Your task to perform on an android device: Open internet settings Image 0: 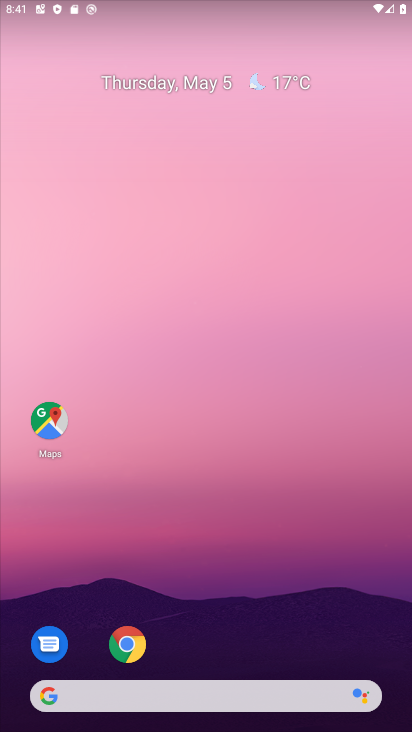
Step 0: drag from (233, 641) to (225, 246)
Your task to perform on an android device: Open internet settings Image 1: 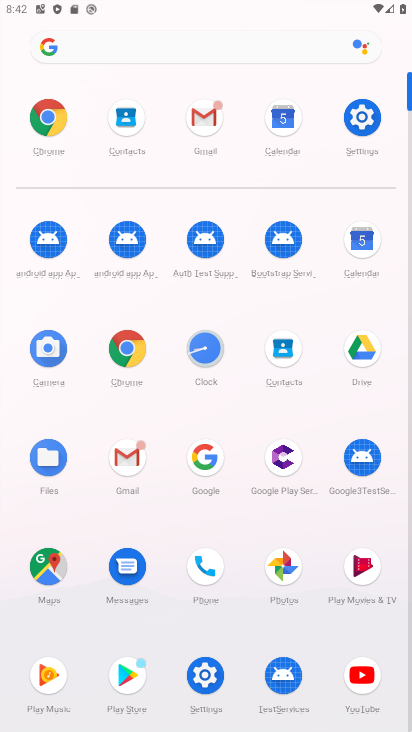
Step 1: click (358, 124)
Your task to perform on an android device: Open internet settings Image 2: 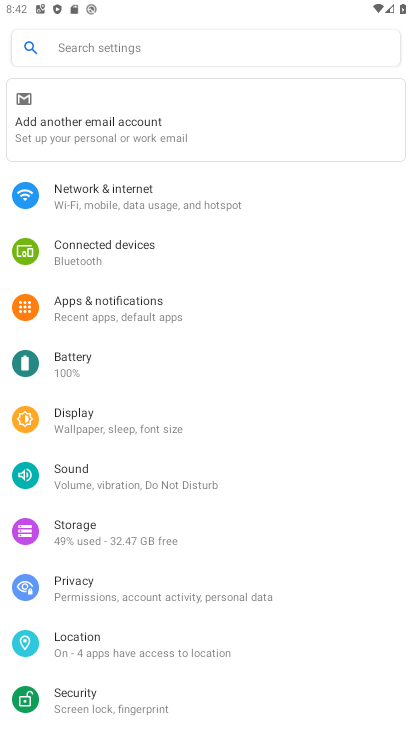
Step 2: click (305, 196)
Your task to perform on an android device: Open internet settings Image 3: 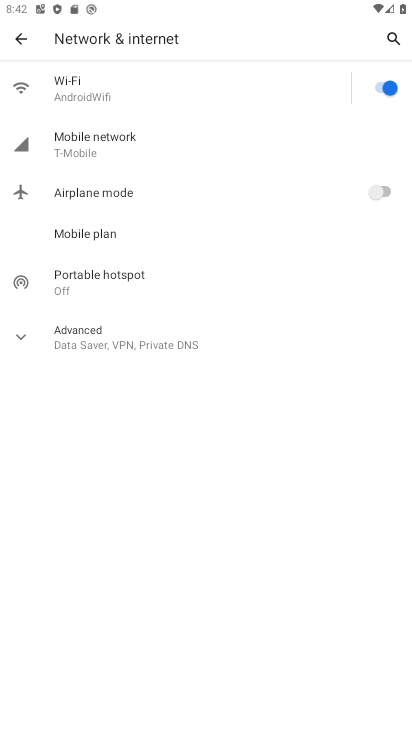
Step 3: task complete